Your task to perform on an android device: Open Youtube and go to "Your channel" Image 0: 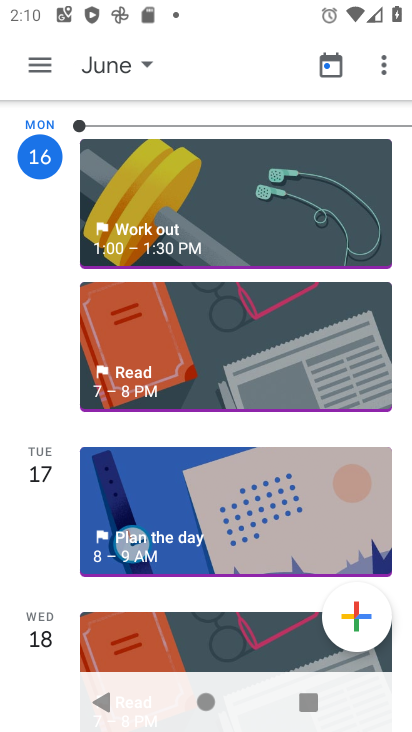
Step 0: press home button
Your task to perform on an android device: Open Youtube and go to "Your channel" Image 1: 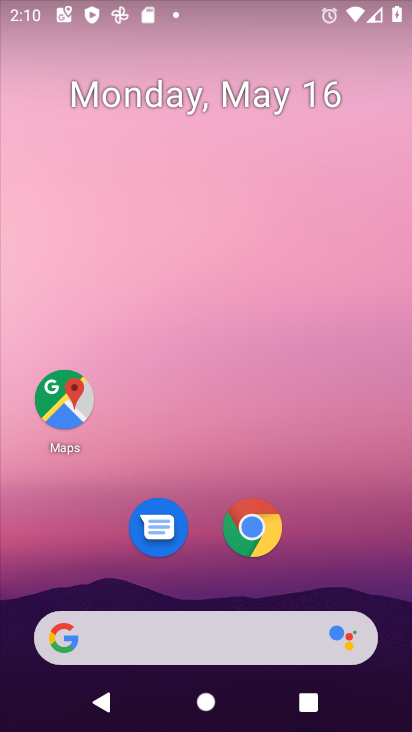
Step 1: drag from (357, 544) to (302, 1)
Your task to perform on an android device: Open Youtube and go to "Your channel" Image 2: 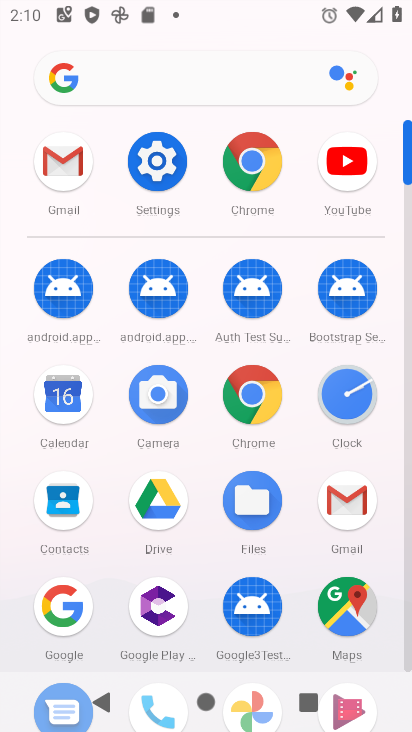
Step 2: click (355, 168)
Your task to perform on an android device: Open Youtube and go to "Your channel" Image 3: 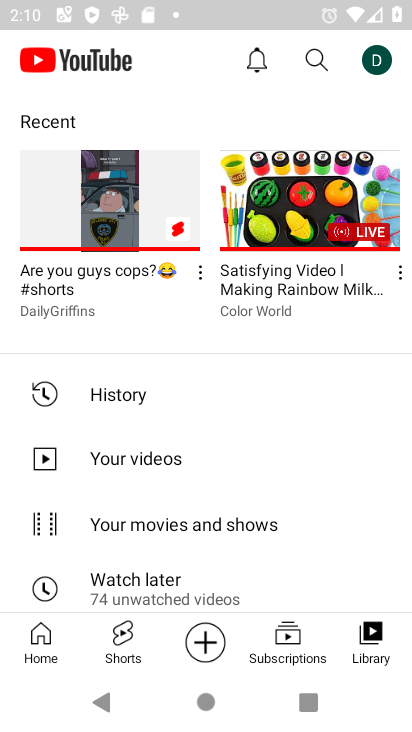
Step 3: click (376, 60)
Your task to perform on an android device: Open Youtube and go to "Your channel" Image 4: 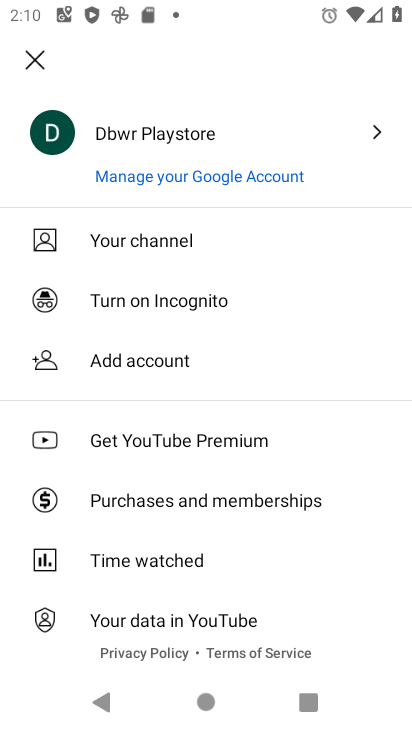
Step 4: click (199, 254)
Your task to perform on an android device: Open Youtube and go to "Your channel" Image 5: 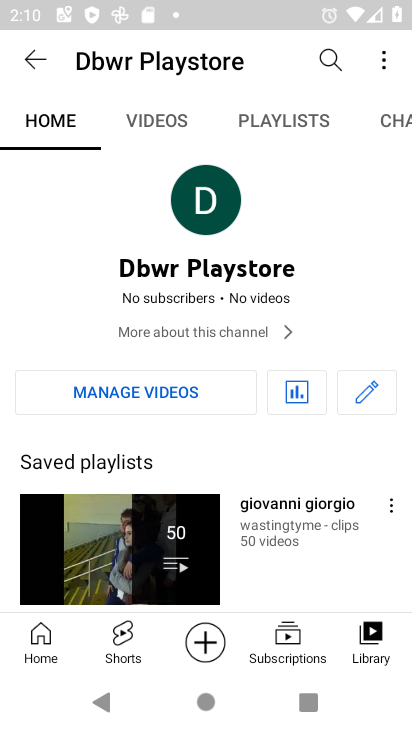
Step 5: task complete